Your task to perform on an android device: open the mobile data screen to see how much data has been used Image 0: 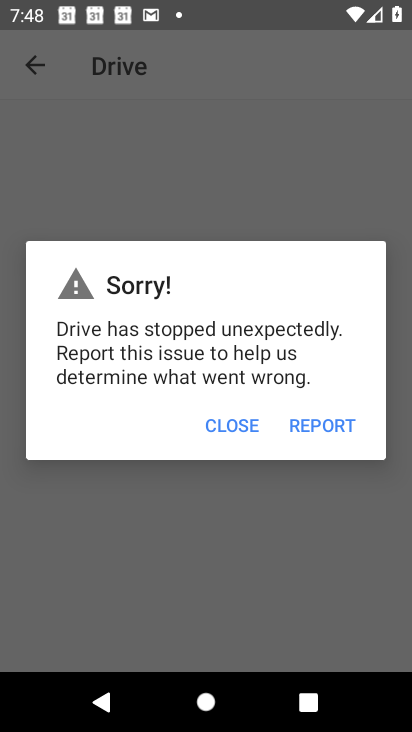
Step 0: press home button
Your task to perform on an android device: open the mobile data screen to see how much data has been used Image 1: 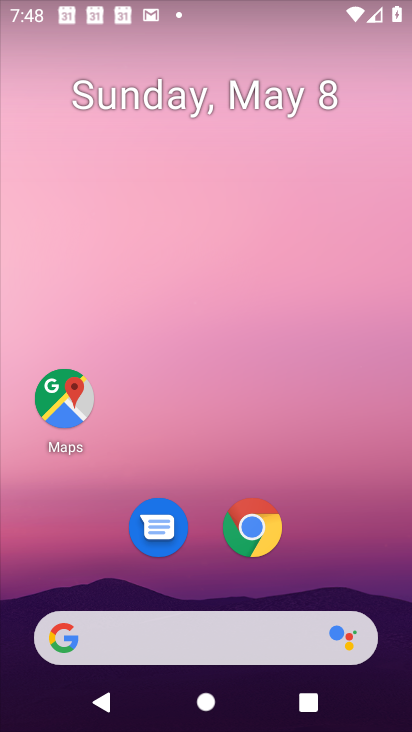
Step 1: drag from (294, 584) to (272, 8)
Your task to perform on an android device: open the mobile data screen to see how much data has been used Image 2: 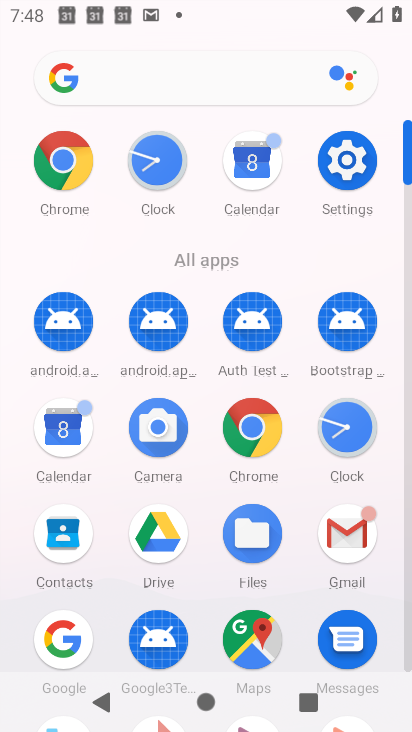
Step 2: click (344, 161)
Your task to perform on an android device: open the mobile data screen to see how much data has been used Image 3: 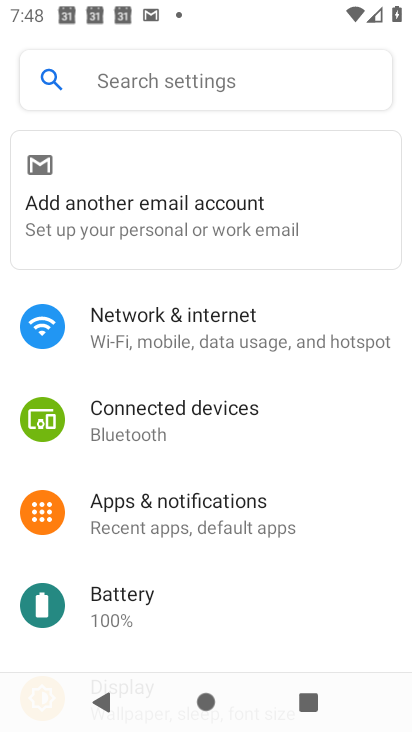
Step 3: click (247, 332)
Your task to perform on an android device: open the mobile data screen to see how much data has been used Image 4: 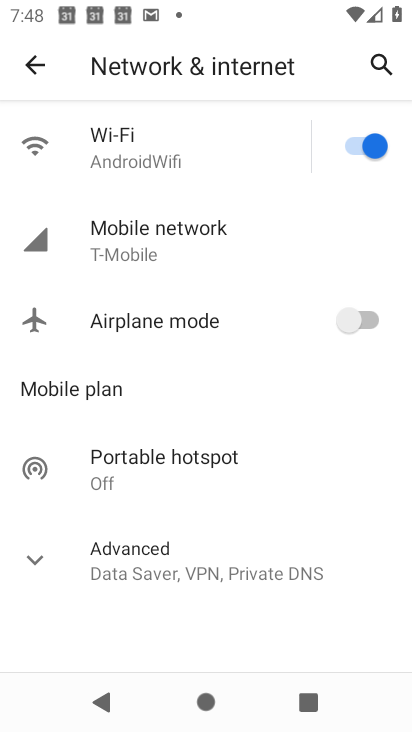
Step 4: click (121, 234)
Your task to perform on an android device: open the mobile data screen to see how much data has been used Image 5: 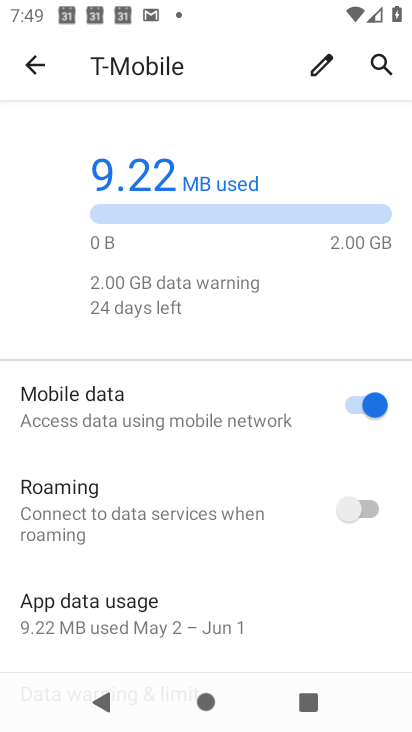
Step 5: drag from (195, 594) to (237, 318)
Your task to perform on an android device: open the mobile data screen to see how much data has been used Image 6: 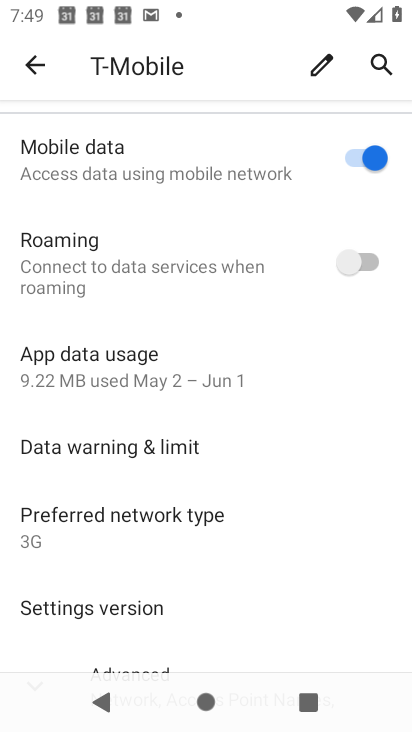
Step 6: click (113, 374)
Your task to perform on an android device: open the mobile data screen to see how much data has been used Image 7: 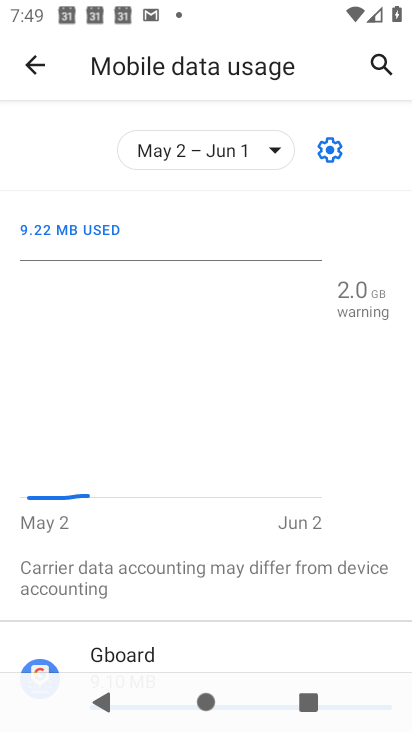
Step 7: task complete